Your task to perform on an android device: see tabs open on other devices in the chrome app Image 0: 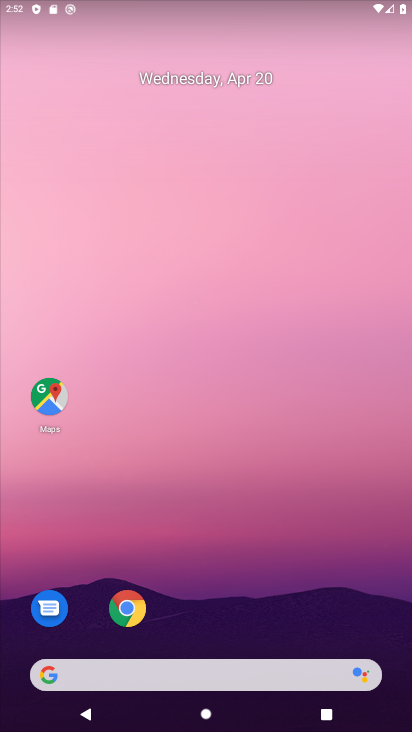
Step 0: click (122, 612)
Your task to perform on an android device: see tabs open on other devices in the chrome app Image 1: 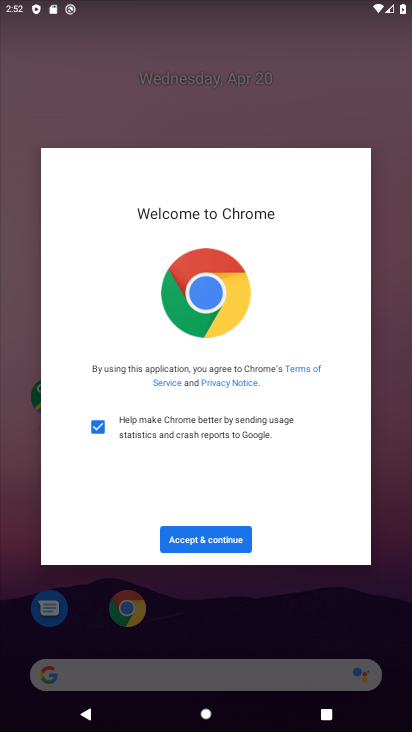
Step 1: click (177, 536)
Your task to perform on an android device: see tabs open on other devices in the chrome app Image 2: 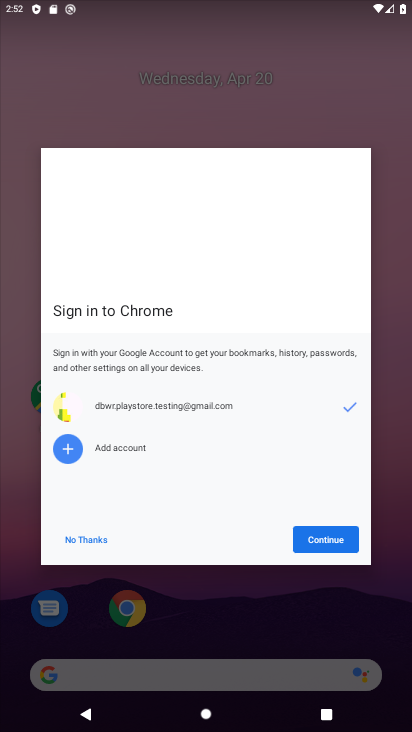
Step 2: click (320, 534)
Your task to perform on an android device: see tabs open on other devices in the chrome app Image 3: 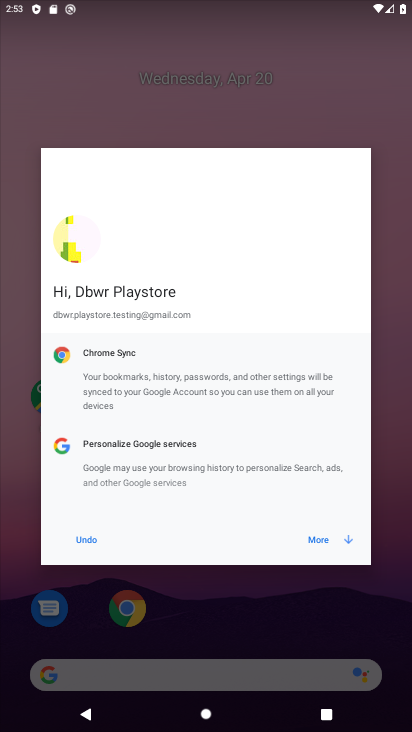
Step 3: click (320, 534)
Your task to perform on an android device: see tabs open on other devices in the chrome app Image 4: 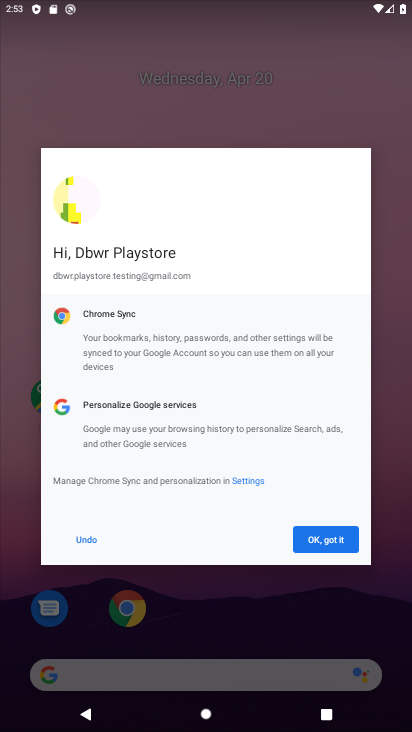
Step 4: click (320, 534)
Your task to perform on an android device: see tabs open on other devices in the chrome app Image 5: 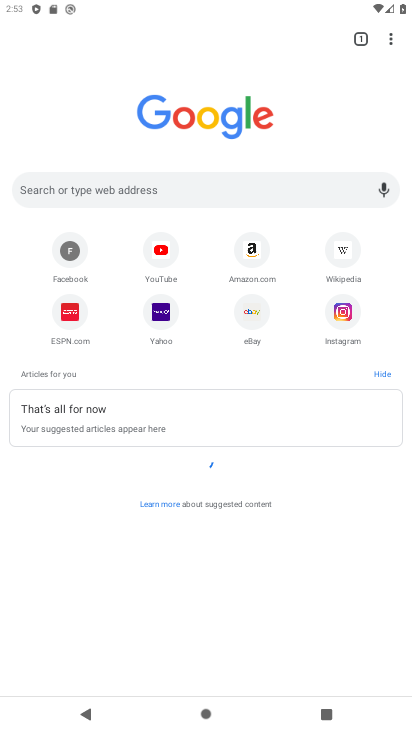
Step 5: click (350, 44)
Your task to perform on an android device: see tabs open on other devices in the chrome app Image 6: 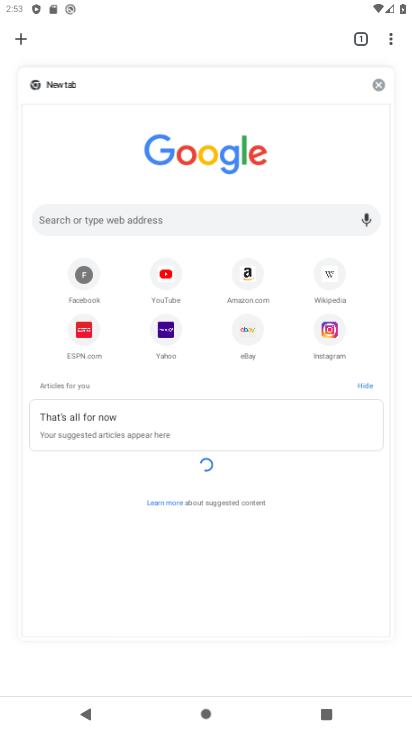
Step 6: task complete